Your task to perform on an android device: What is the capital of Brazil? Image 0: 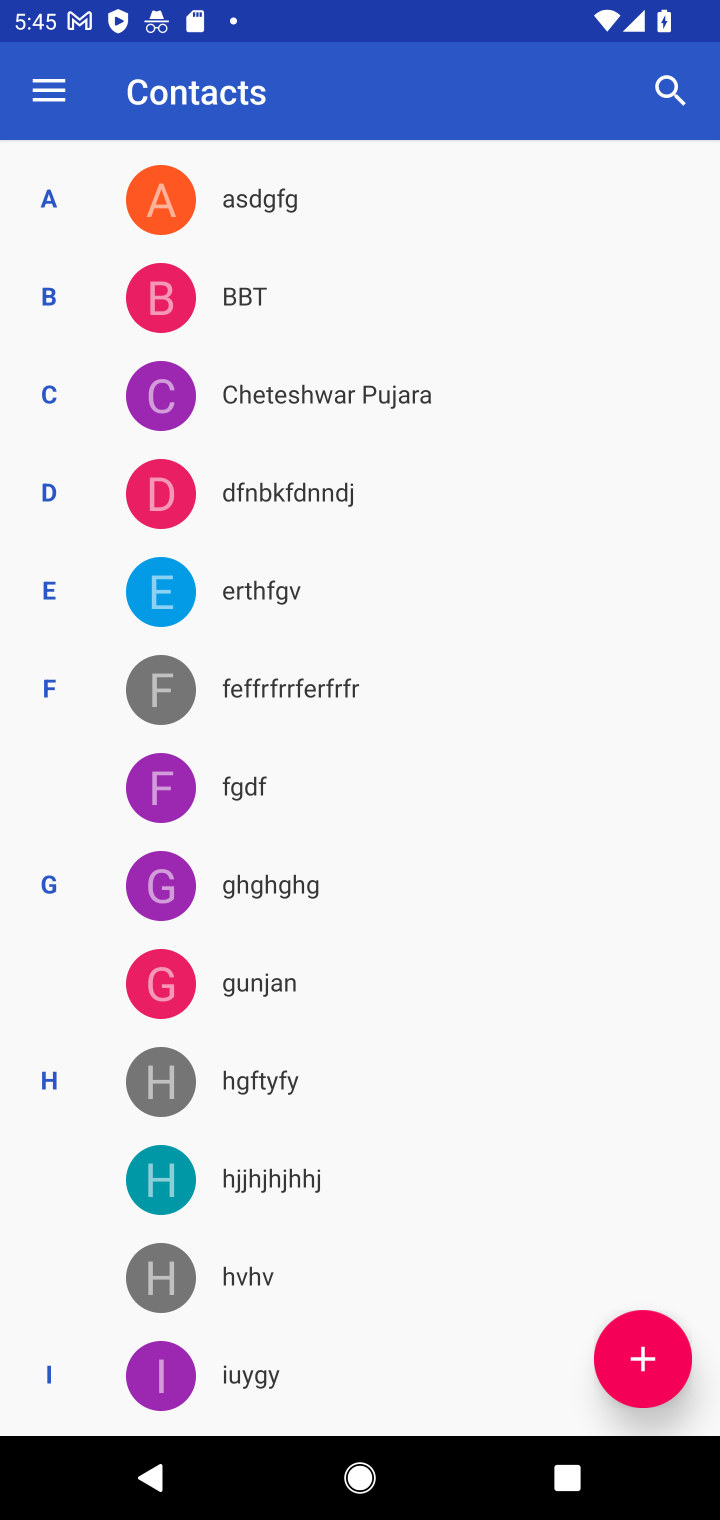
Step 0: press home button
Your task to perform on an android device: What is the capital of Brazil? Image 1: 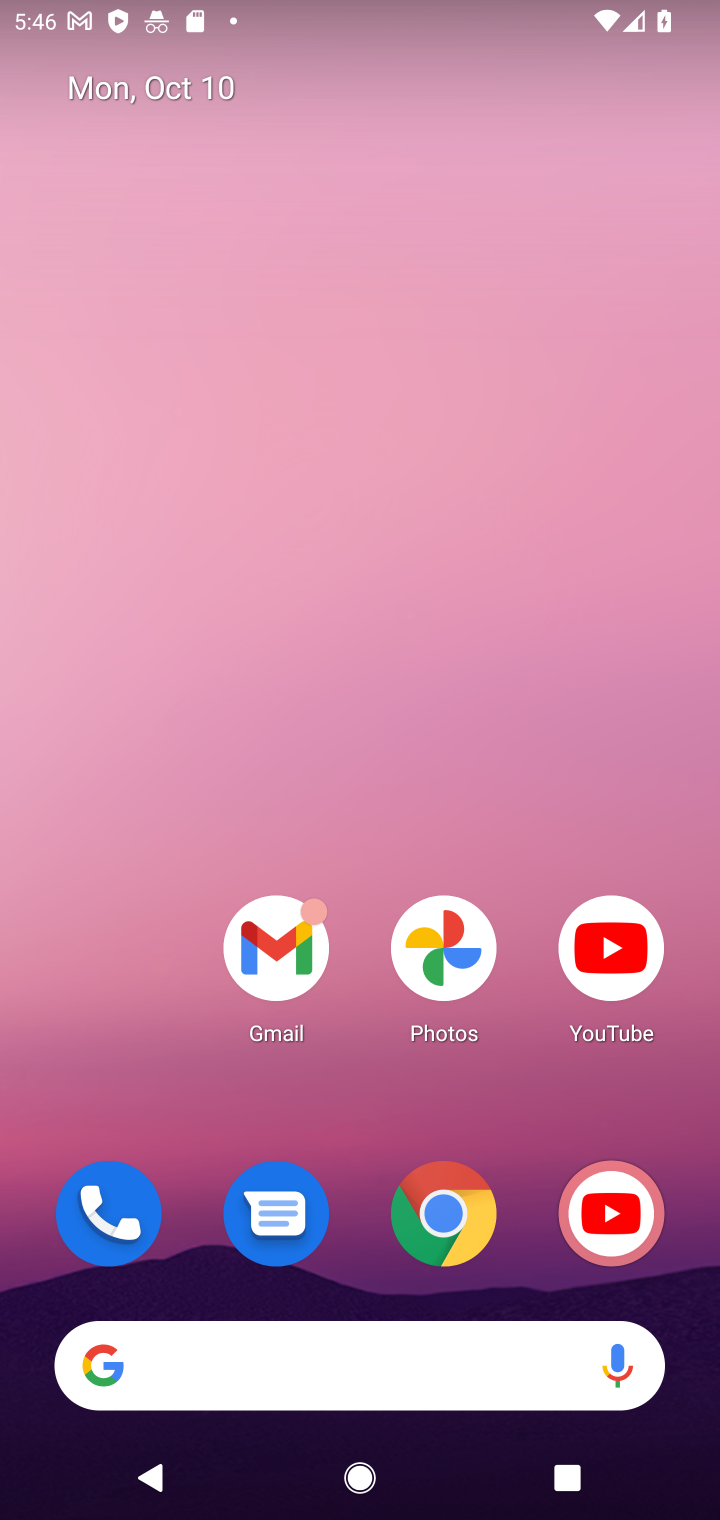
Step 1: click (354, 1375)
Your task to perform on an android device: What is the capital of Brazil? Image 2: 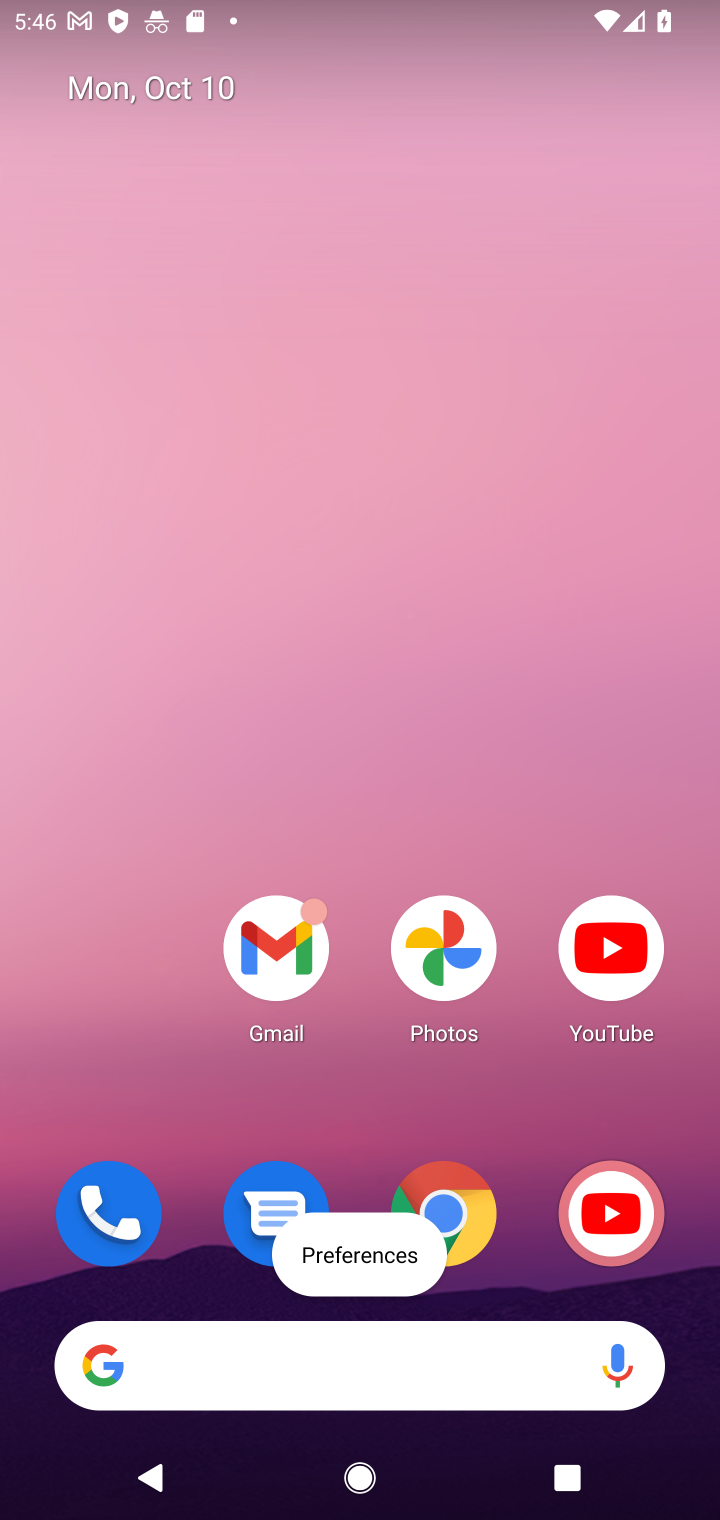
Step 2: type "What is the capital of Brazil?"
Your task to perform on an android device: What is the capital of Brazil? Image 3: 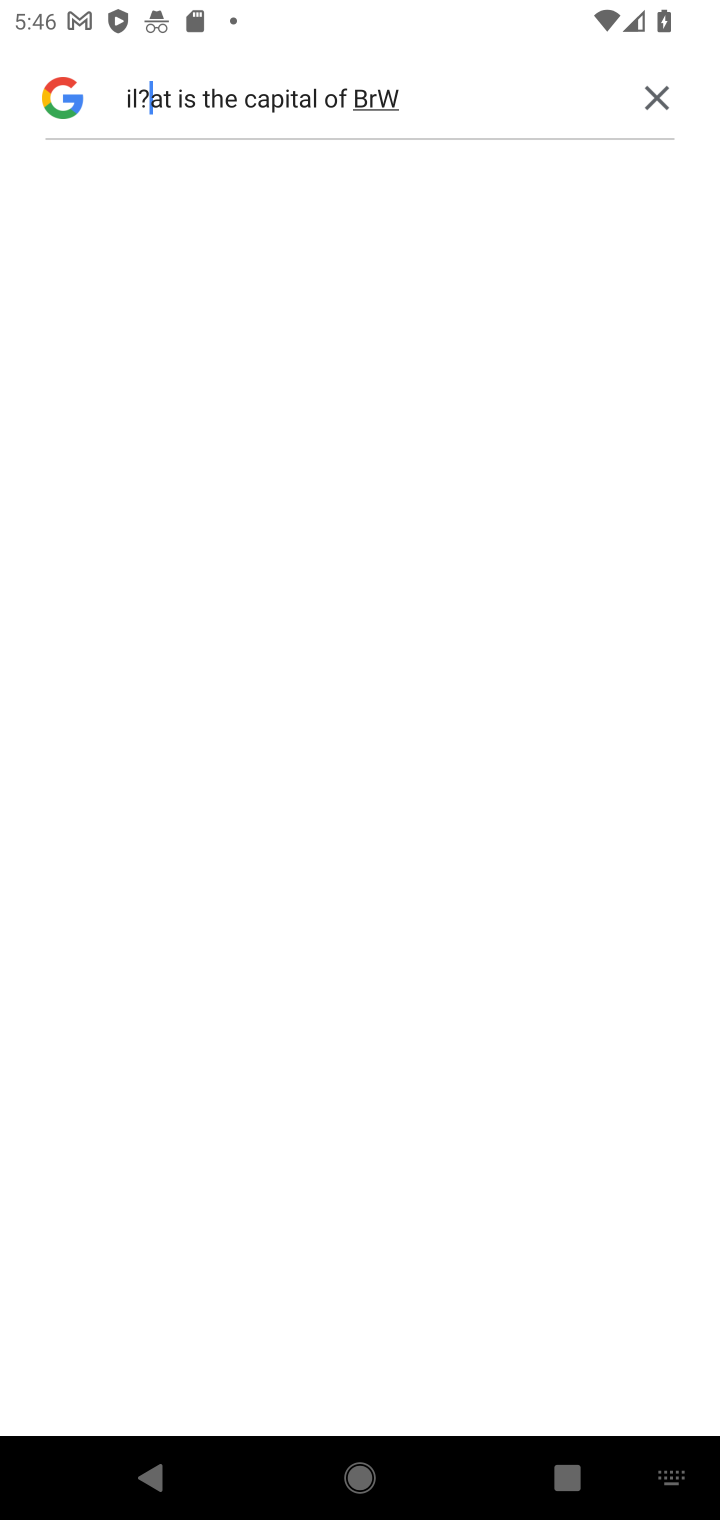
Step 3: click (646, 98)
Your task to perform on an android device: What is the capital of Brazil? Image 4: 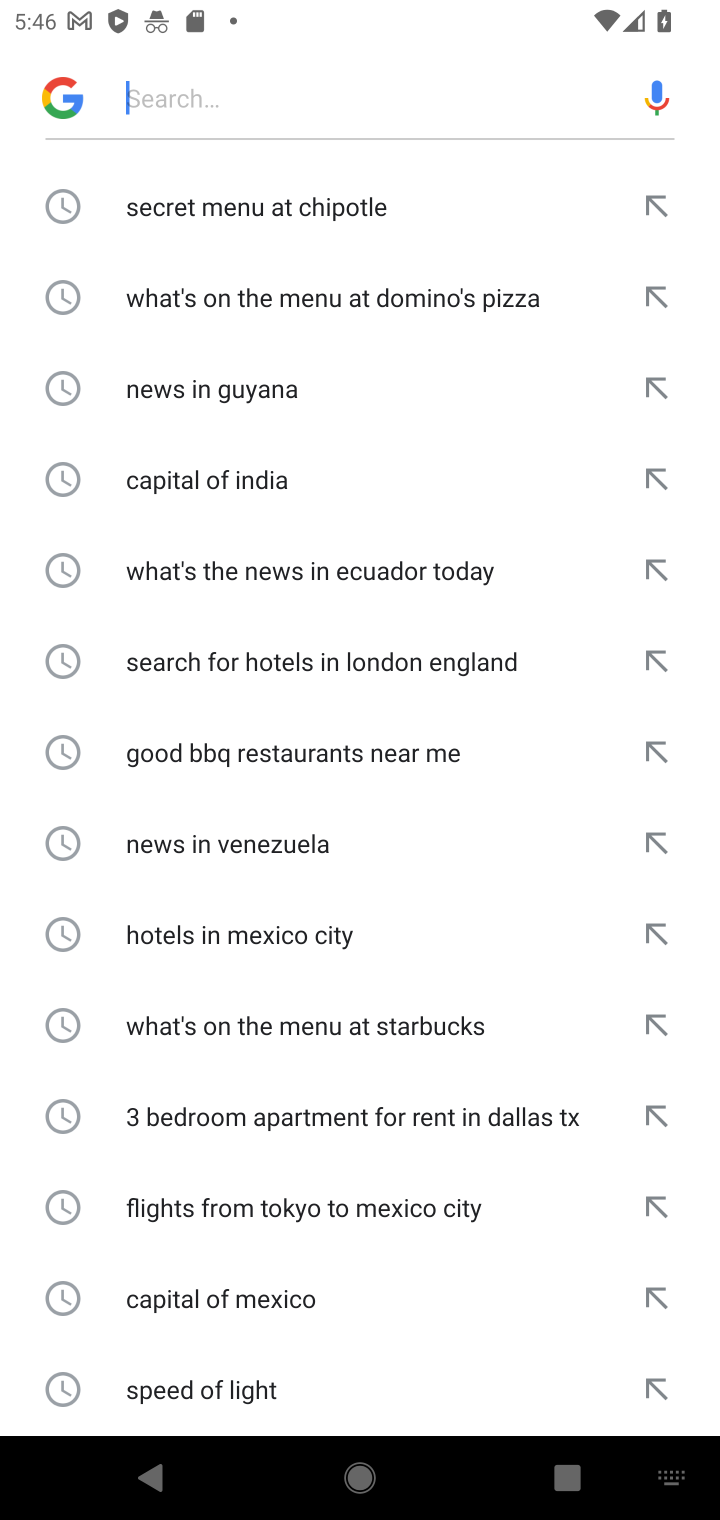
Step 4: type "What is the capital of Brazil?"
Your task to perform on an android device: What is the capital of Brazil? Image 5: 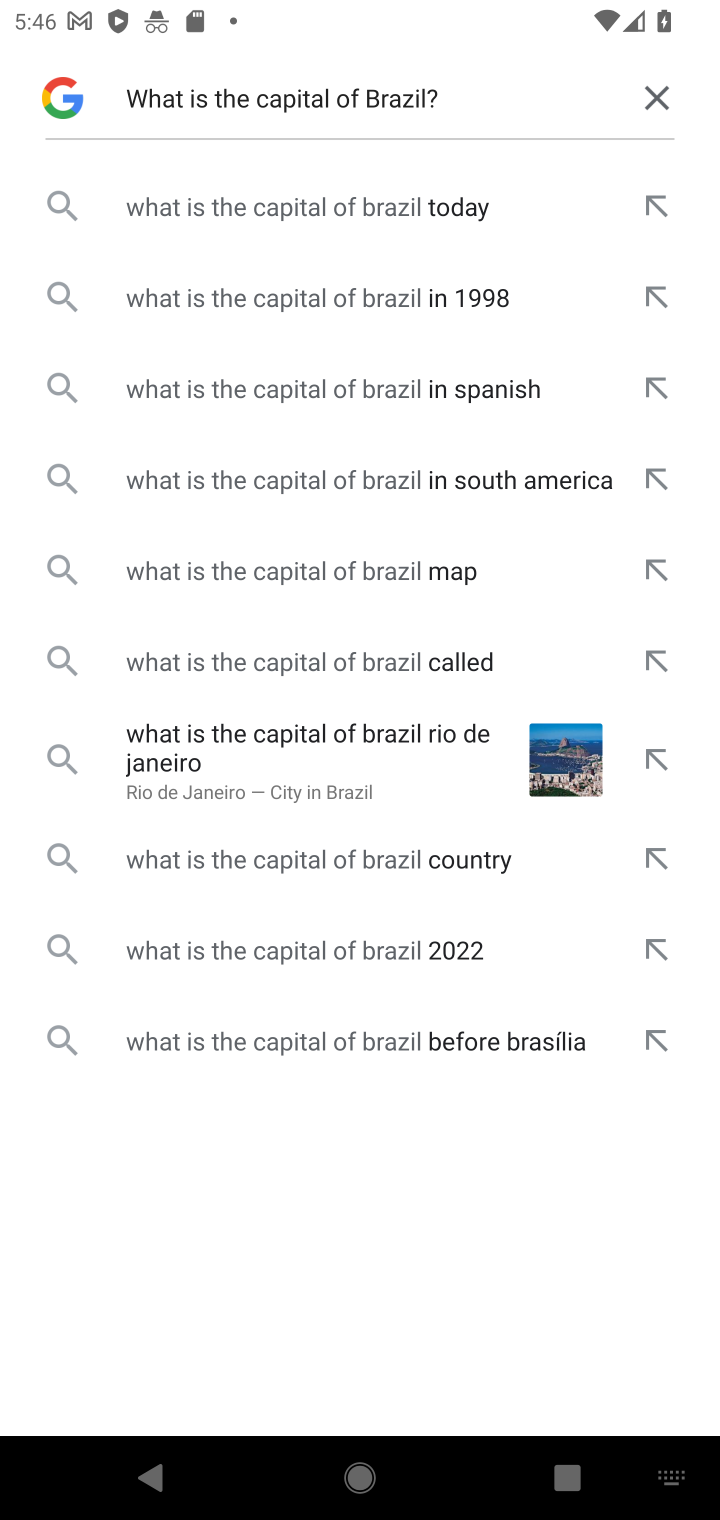
Step 5: click (350, 202)
Your task to perform on an android device: What is the capital of Brazil? Image 6: 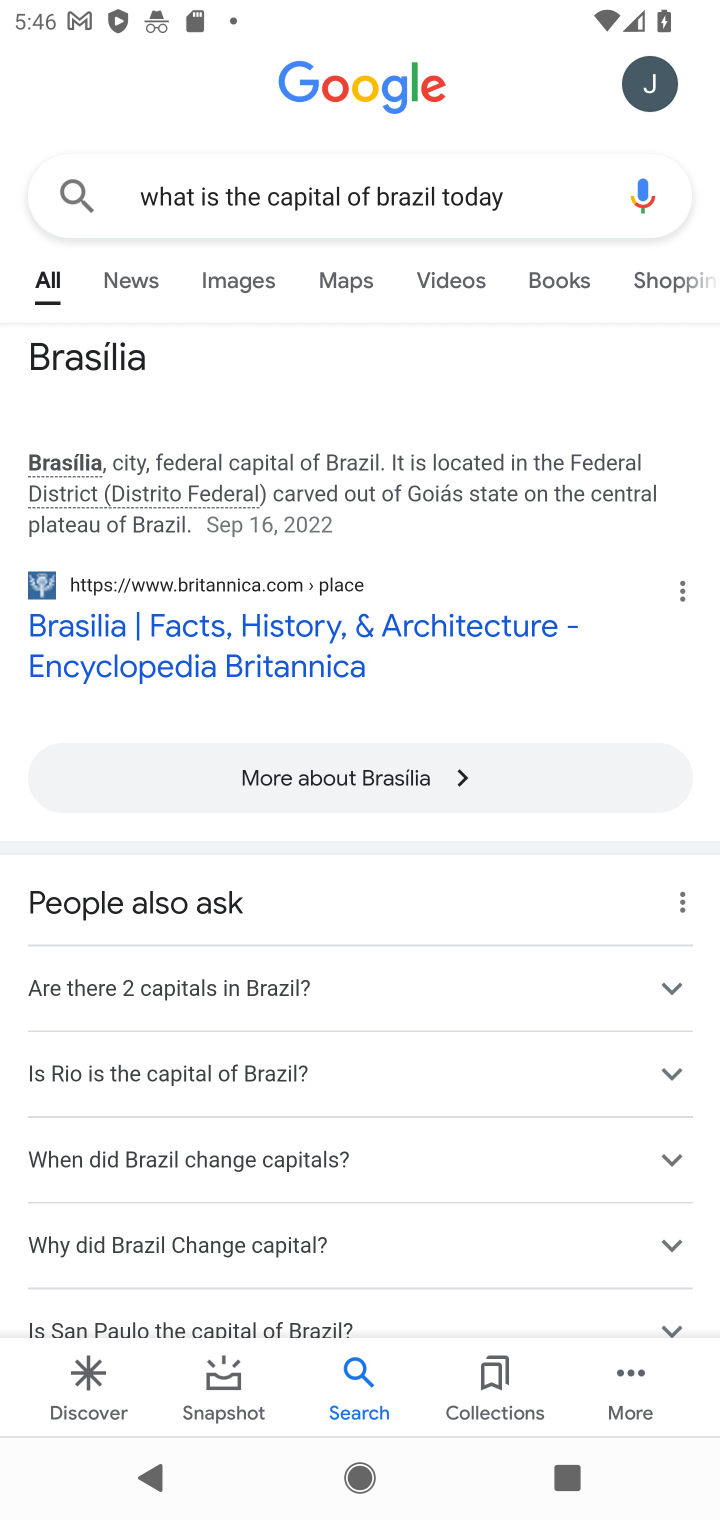
Step 6: task complete